Your task to perform on an android device: When is my next meeting? Image 0: 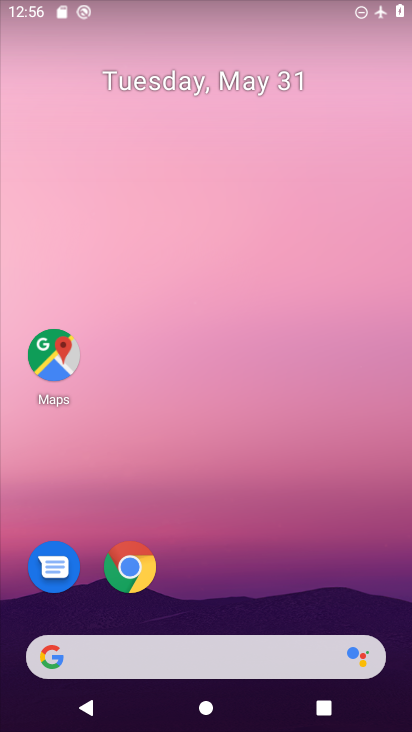
Step 0: drag from (236, 557) to (253, 142)
Your task to perform on an android device: When is my next meeting? Image 1: 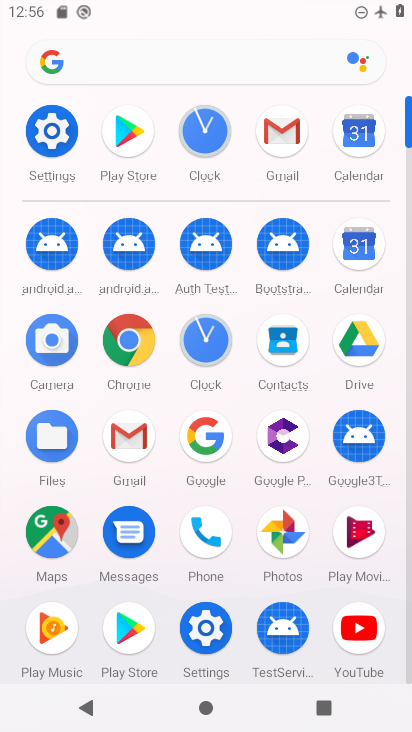
Step 1: click (340, 126)
Your task to perform on an android device: When is my next meeting? Image 2: 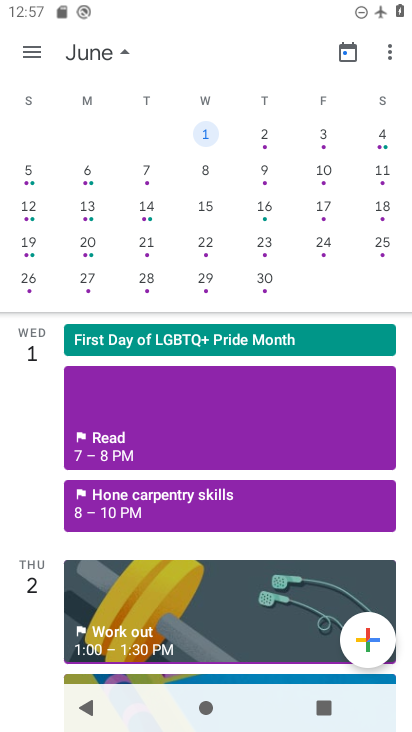
Step 2: task complete